Your task to perform on an android device: What's the weather today? Image 0: 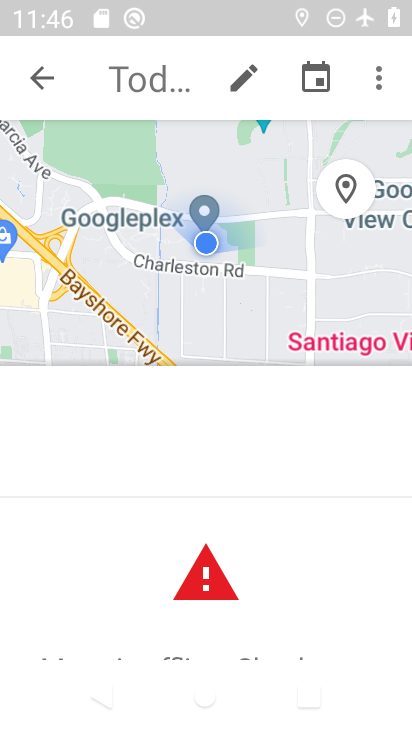
Step 0: press home button
Your task to perform on an android device: What's the weather today? Image 1: 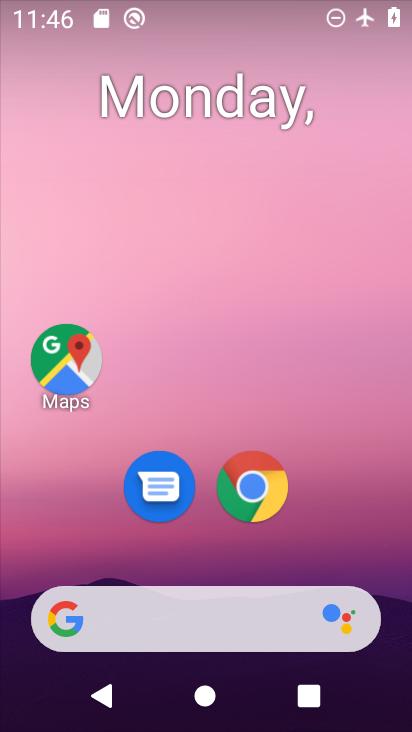
Step 1: click (167, 629)
Your task to perform on an android device: What's the weather today? Image 2: 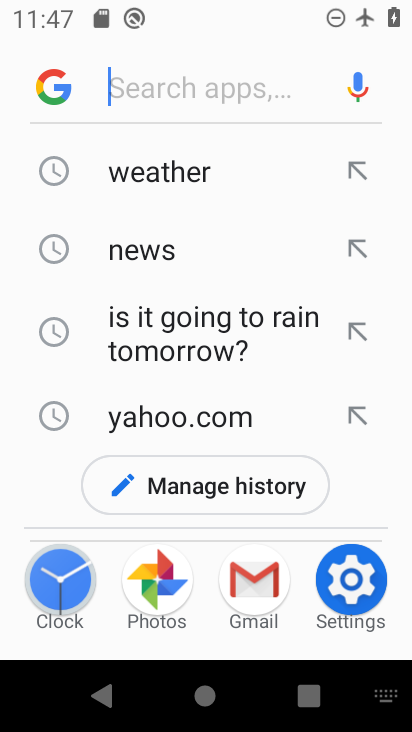
Step 2: click (176, 169)
Your task to perform on an android device: What's the weather today? Image 3: 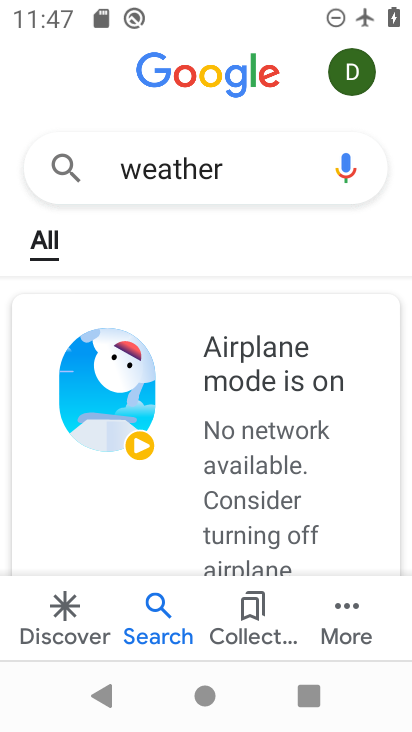
Step 3: task complete